Your task to perform on an android device: turn pop-ups on in chrome Image 0: 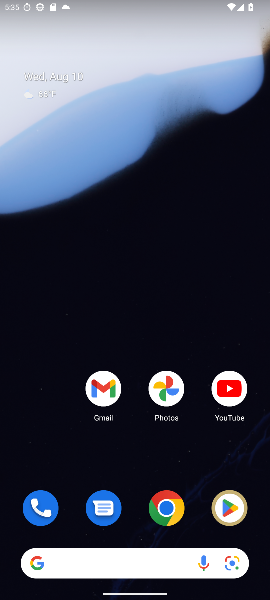
Step 0: press home button
Your task to perform on an android device: turn pop-ups on in chrome Image 1: 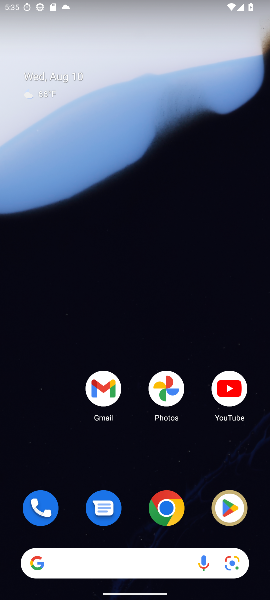
Step 1: click (164, 510)
Your task to perform on an android device: turn pop-ups on in chrome Image 2: 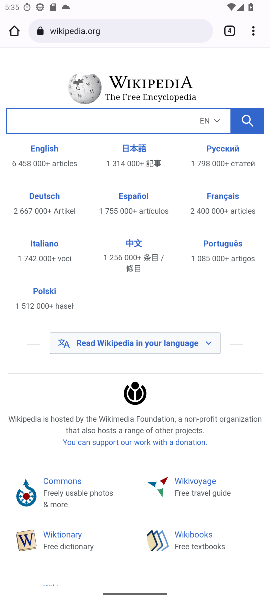
Step 2: drag from (246, 29) to (165, 391)
Your task to perform on an android device: turn pop-ups on in chrome Image 3: 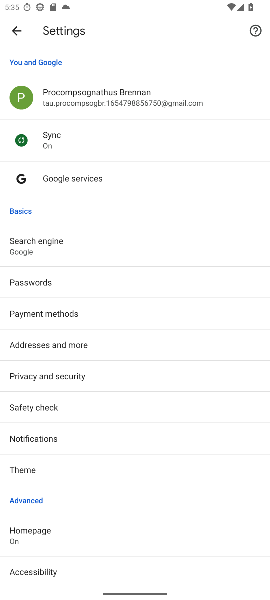
Step 3: drag from (64, 502) to (75, 255)
Your task to perform on an android device: turn pop-ups on in chrome Image 4: 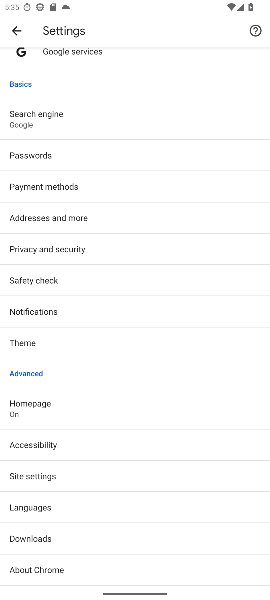
Step 4: click (37, 470)
Your task to perform on an android device: turn pop-ups on in chrome Image 5: 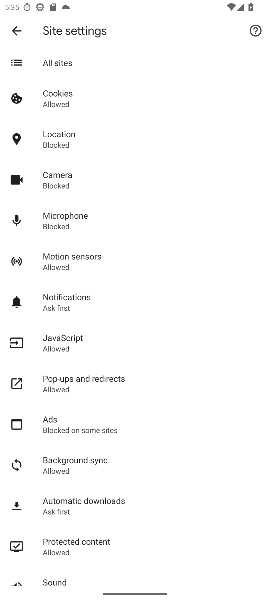
Step 5: click (72, 383)
Your task to perform on an android device: turn pop-ups on in chrome Image 6: 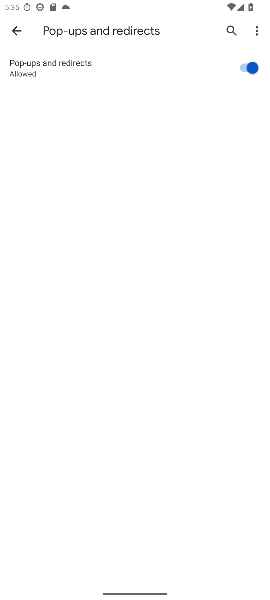
Step 6: task complete